Your task to perform on an android device: Search for Mexican restaurants on Maps Image 0: 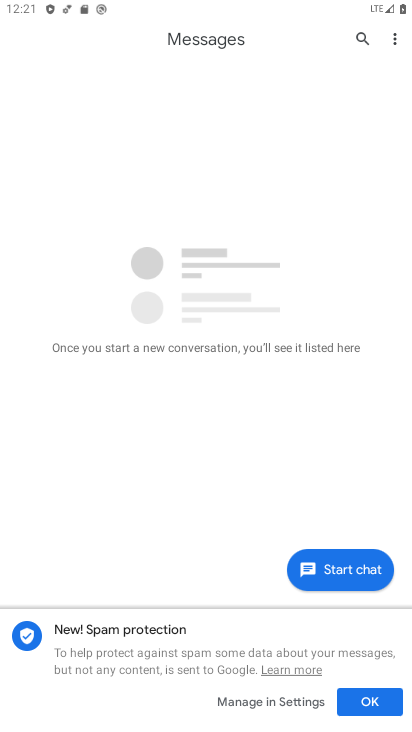
Step 0: press home button
Your task to perform on an android device: Search for Mexican restaurants on Maps Image 1: 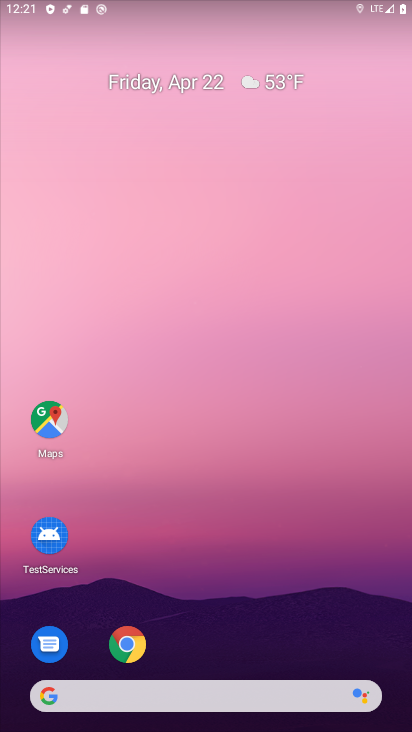
Step 1: drag from (237, 583) to (281, 79)
Your task to perform on an android device: Search for Mexican restaurants on Maps Image 2: 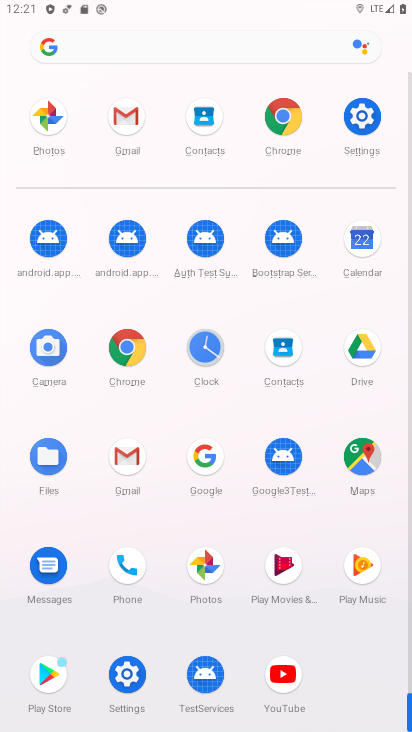
Step 2: click (361, 445)
Your task to perform on an android device: Search for Mexican restaurants on Maps Image 3: 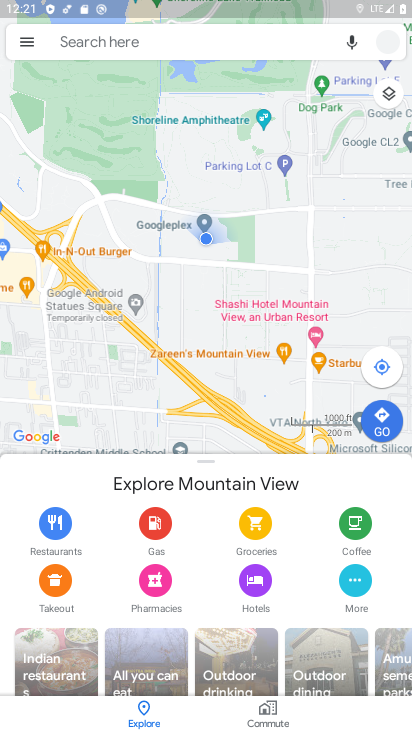
Step 3: click (200, 46)
Your task to perform on an android device: Search for Mexican restaurants on Maps Image 4: 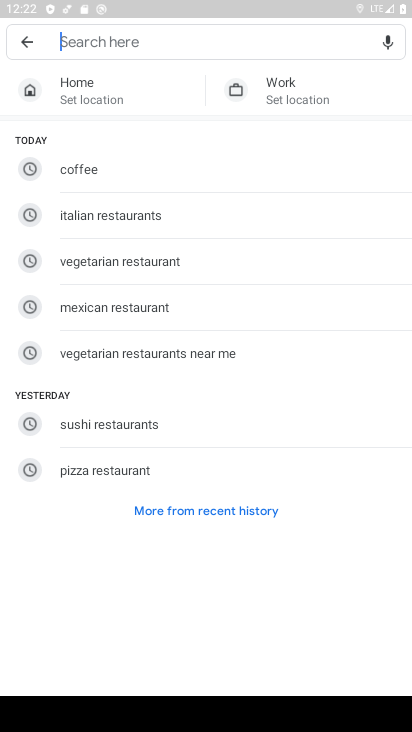
Step 4: type "Mexican restaurants"
Your task to perform on an android device: Search for Mexican restaurants on Maps Image 5: 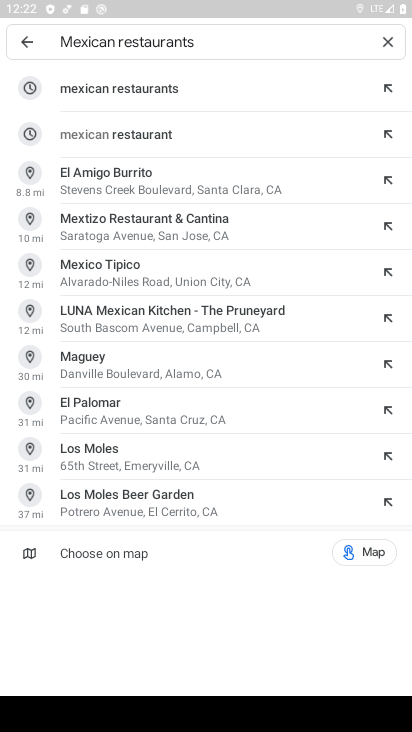
Step 5: click (229, 85)
Your task to perform on an android device: Search for Mexican restaurants on Maps Image 6: 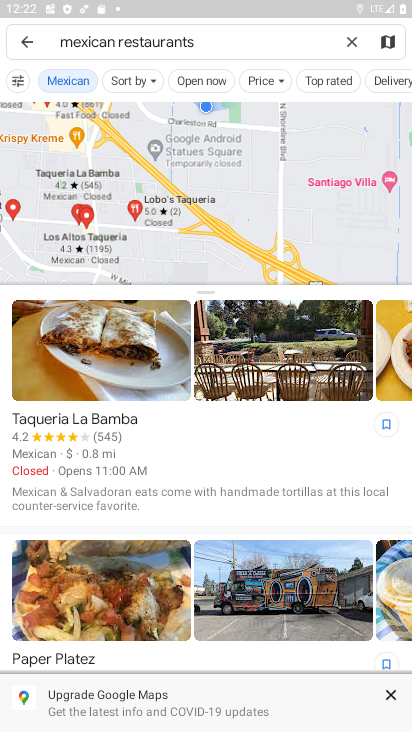
Step 6: task complete